Your task to perform on an android device: View the shopping cart on amazon. Add "logitech g pro" to the cart on amazon Image 0: 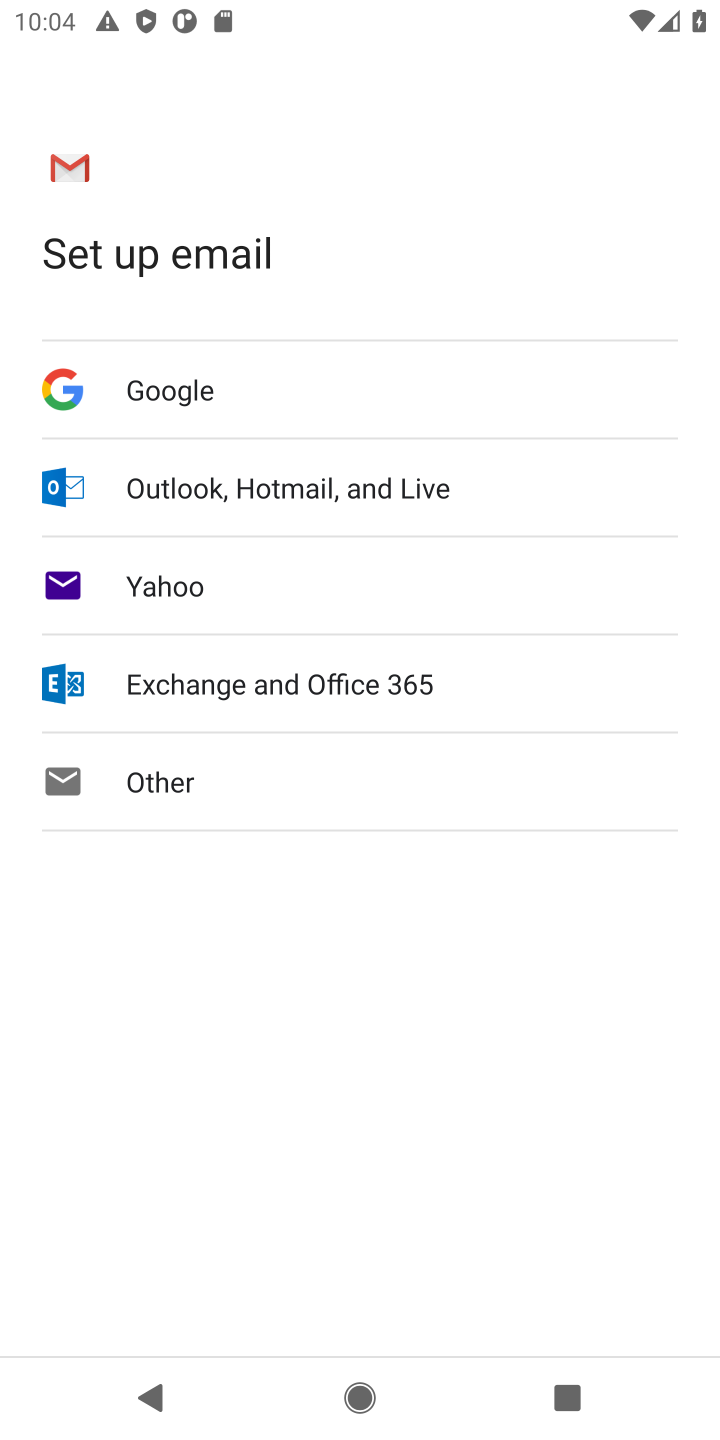
Step 0: press home button
Your task to perform on an android device: View the shopping cart on amazon. Add "logitech g pro" to the cart on amazon Image 1: 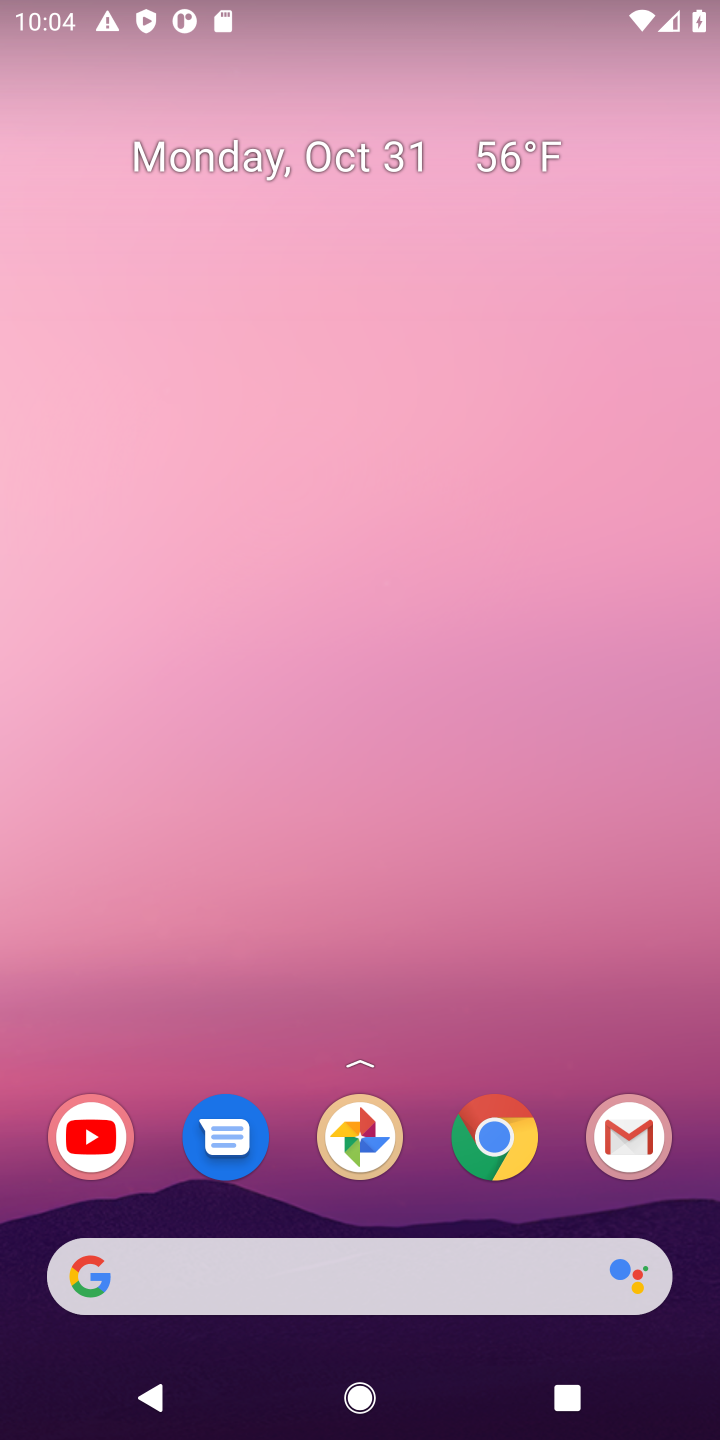
Step 1: click (496, 1135)
Your task to perform on an android device: View the shopping cart on amazon. Add "logitech g pro" to the cart on amazon Image 2: 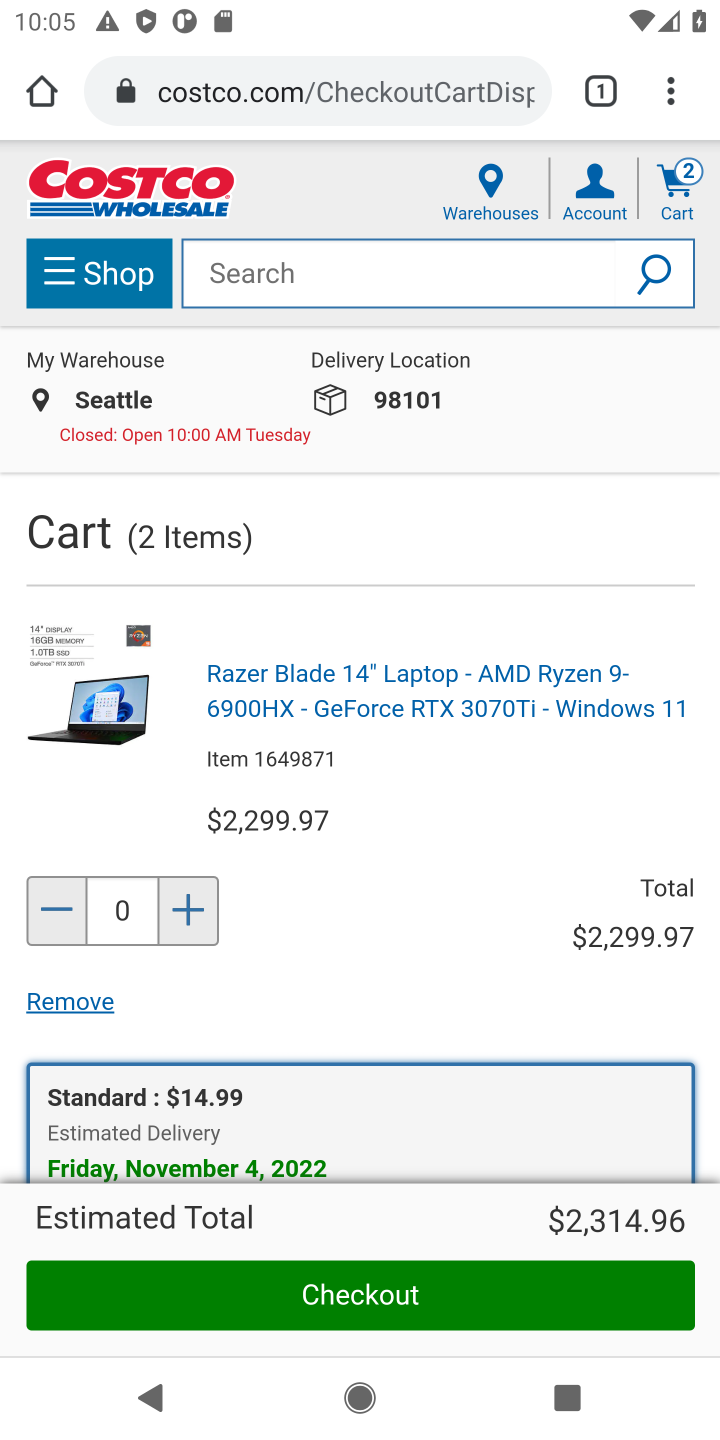
Step 2: click (388, 97)
Your task to perform on an android device: View the shopping cart on amazon. Add "logitech g pro" to the cart on amazon Image 3: 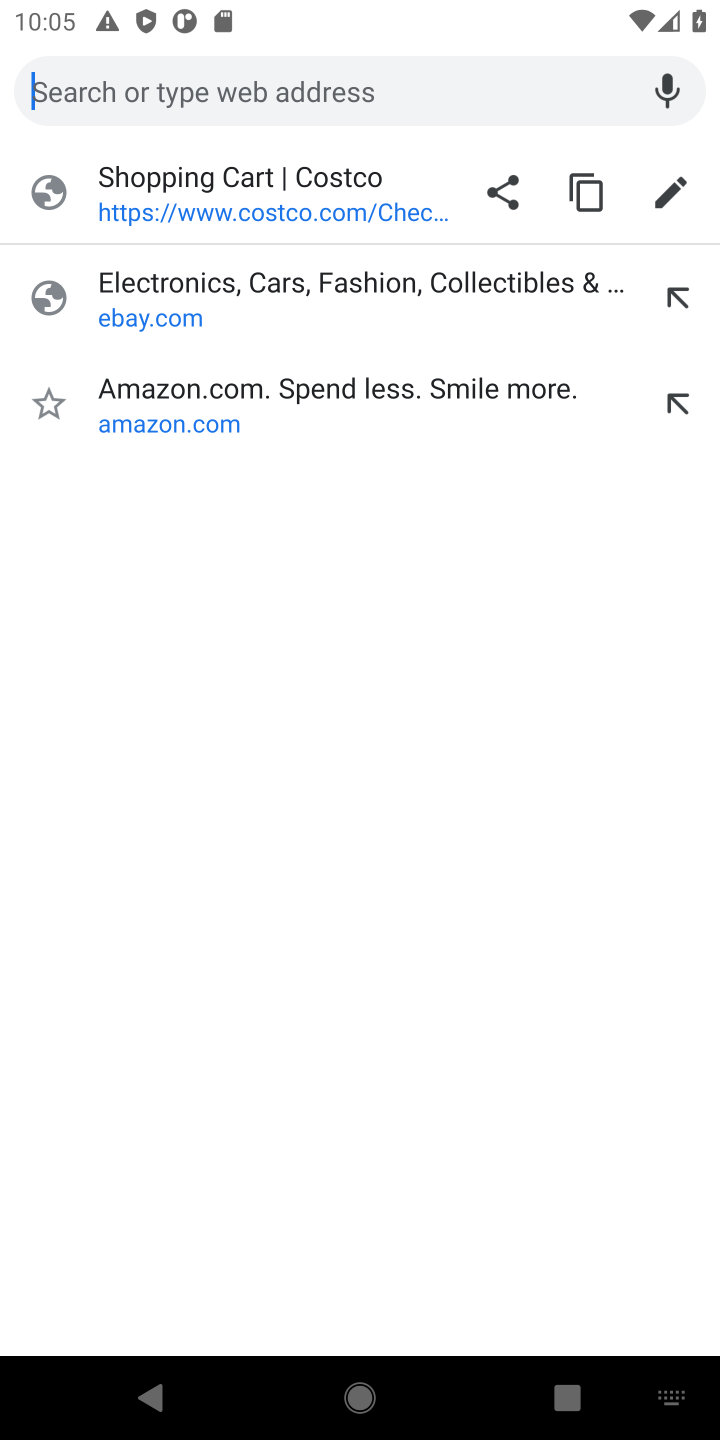
Step 3: type "amazon"
Your task to perform on an android device: View the shopping cart on amazon. Add "logitech g pro" to the cart on amazon Image 4: 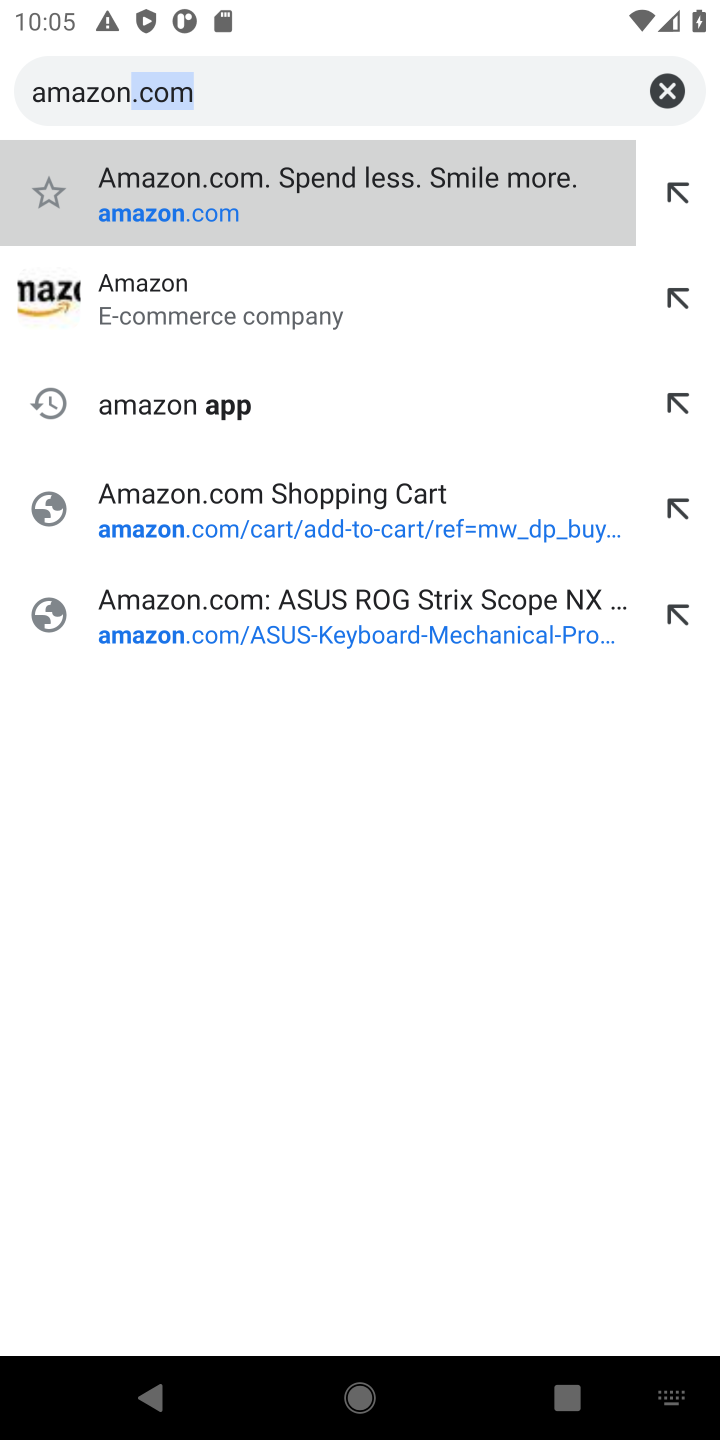
Step 4: click (135, 281)
Your task to perform on an android device: View the shopping cart on amazon. Add "logitech g pro" to the cart on amazon Image 5: 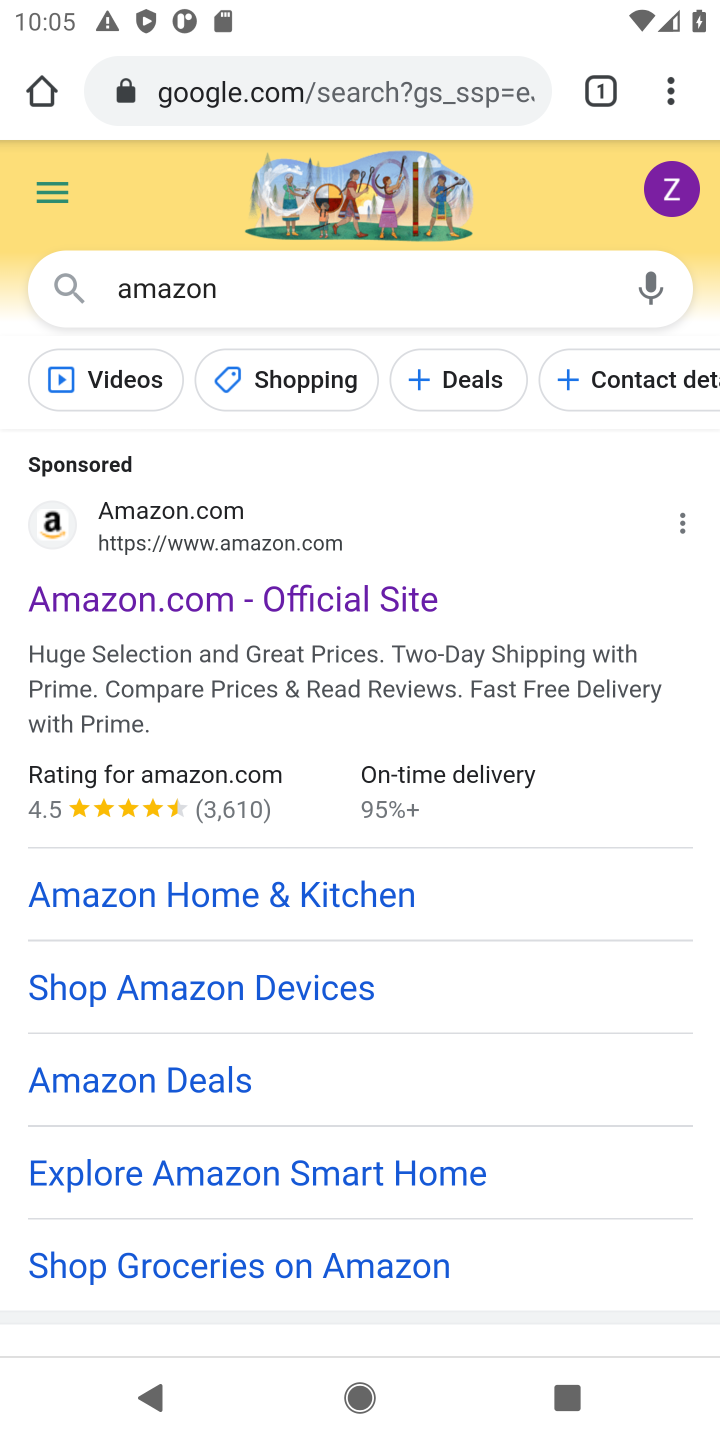
Step 5: drag from (381, 1057) to (410, 517)
Your task to perform on an android device: View the shopping cart on amazon. Add "logitech g pro" to the cart on amazon Image 6: 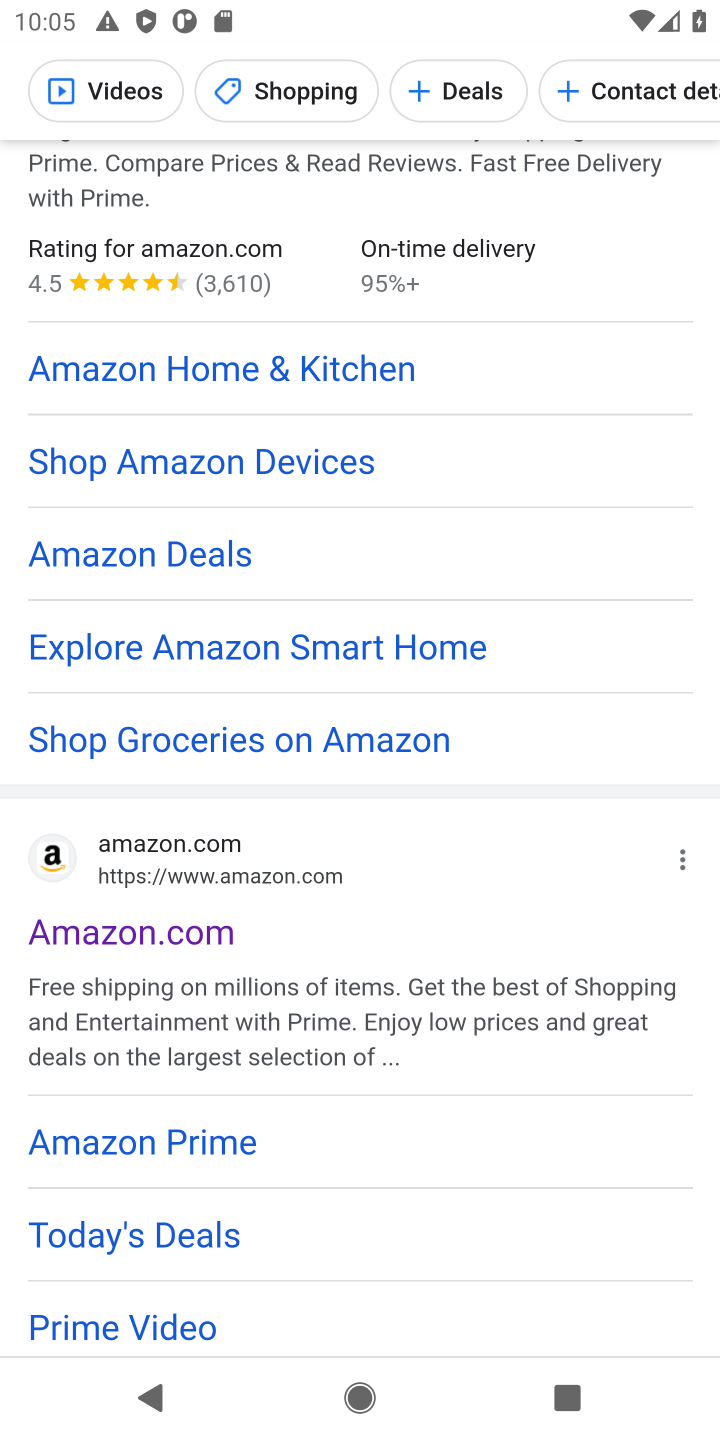
Step 6: click (180, 940)
Your task to perform on an android device: View the shopping cart on amazon. Add "logitech g pro" to the cart on amazon Image 7: 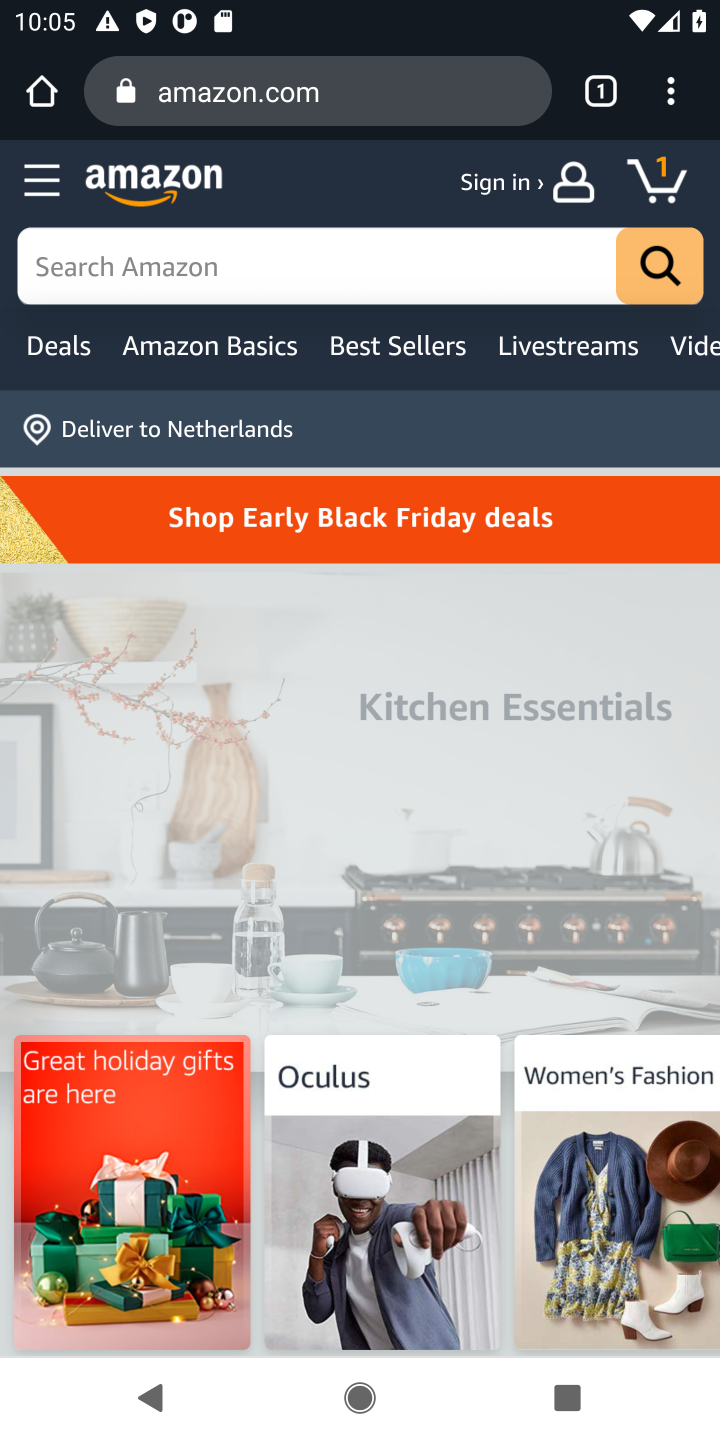
Step 7: click (655, 190)
Your task to perform on an android device: View the shopping cart on amazon. Add "logitech g pro" to the cart on amazon Image 8: 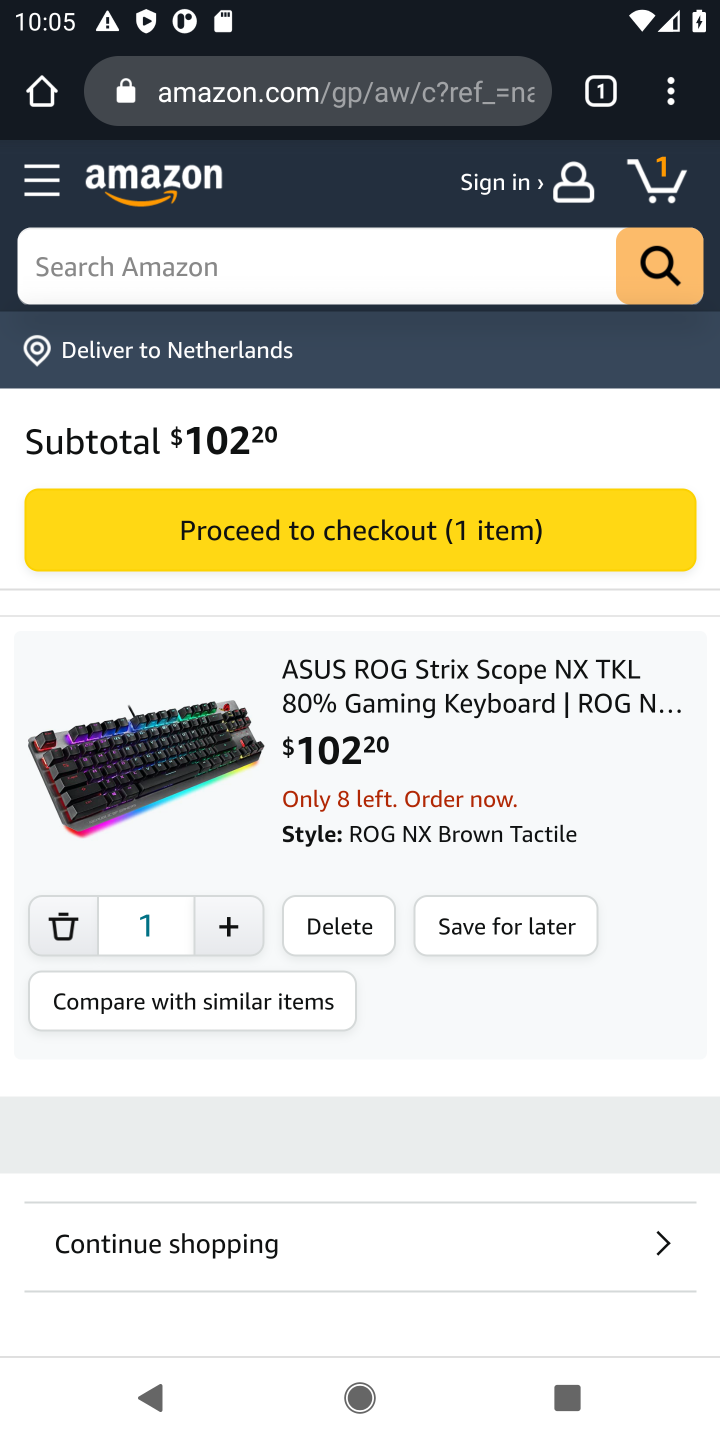
Step 8: click (311, 276)
Your task to perform on an android device: View the shopping cart on amazon. Add "logitech g pro" to the cart on amazon Image 9: 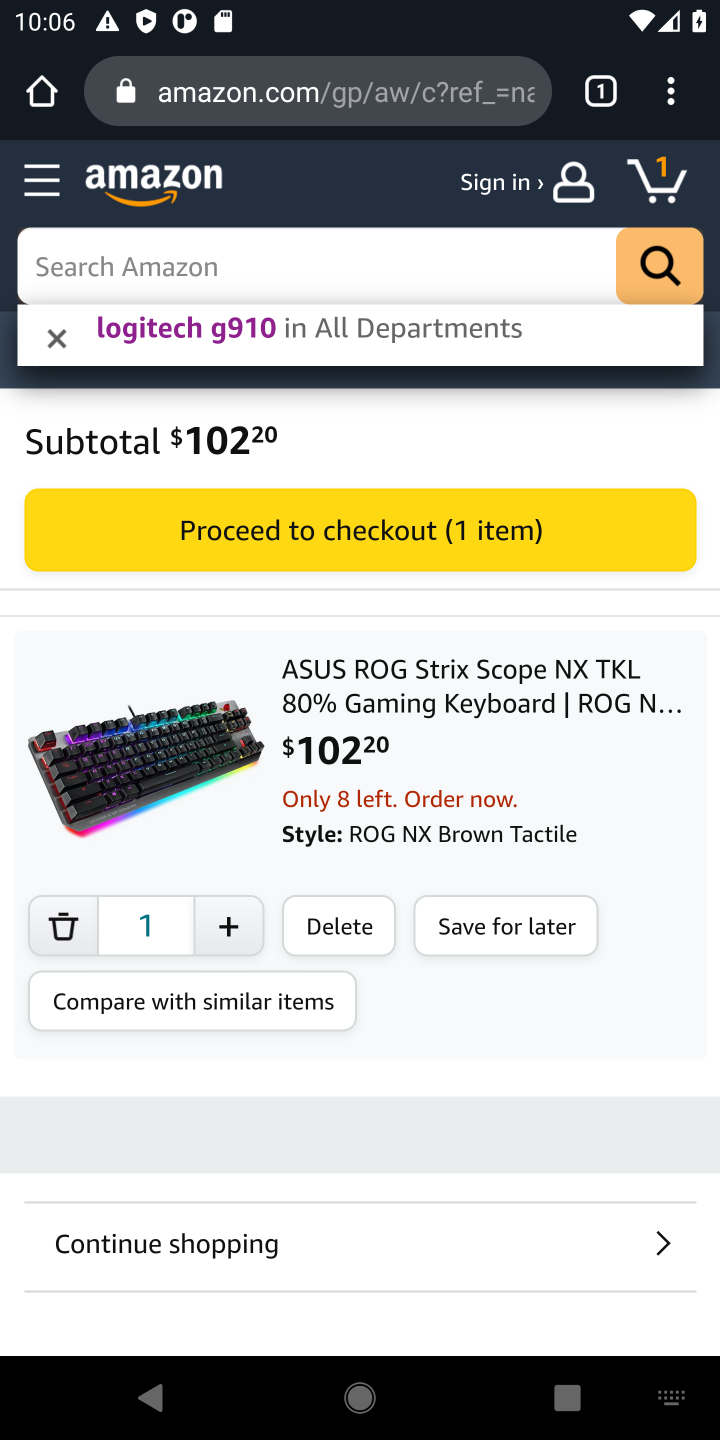
Step 9: type "logitech g pro"
Your task to perform on an android device: View the shopping cart on amazon. Add "logitech g pro" to the cart on amazon Image 10: 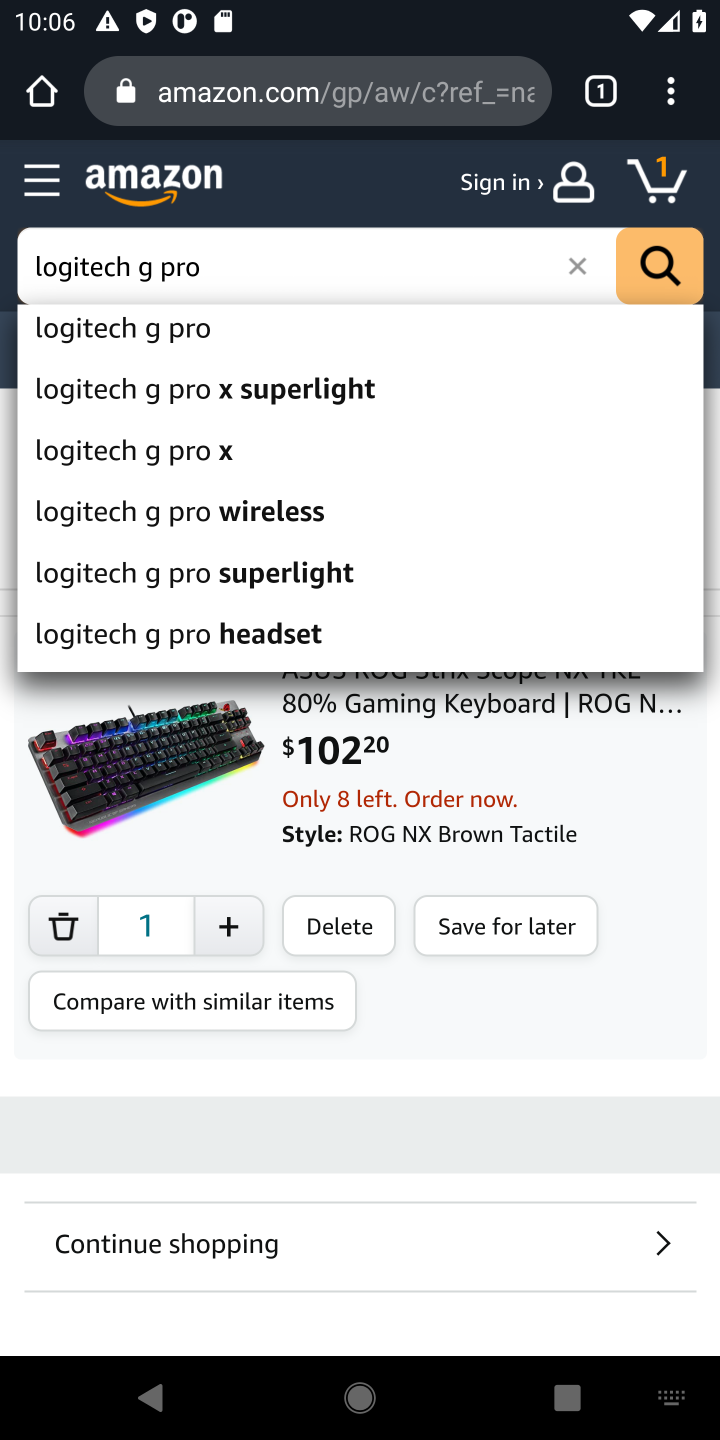
Step 10: click (165, 336)
Your task to perform on an android device: View the shopping cart on amazon. Add "logitech g pro" to the cart on amazon Image 11: 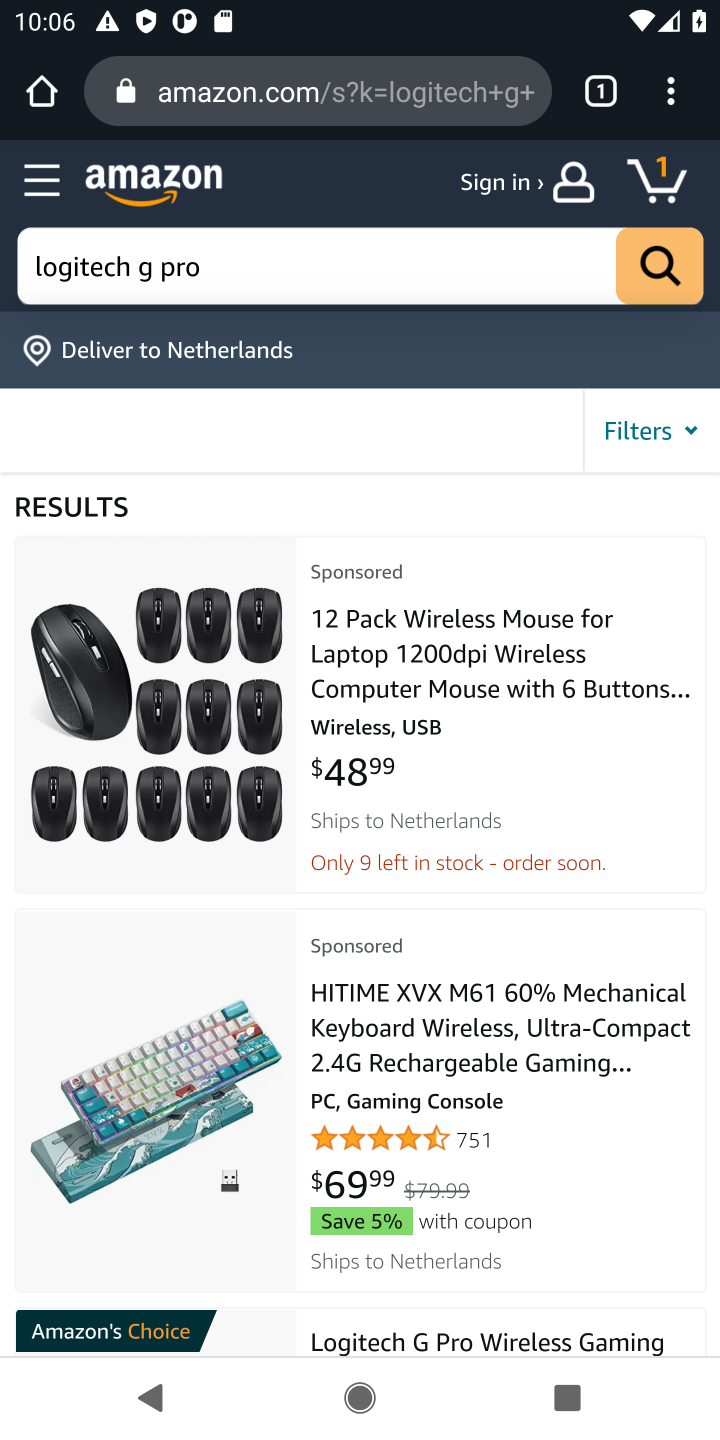
Step 11: click (368, 665)
Your task to perform on an android device: View the shopping cart on amazon. Add "logitech g pro" to the cart on amazon Image 12: 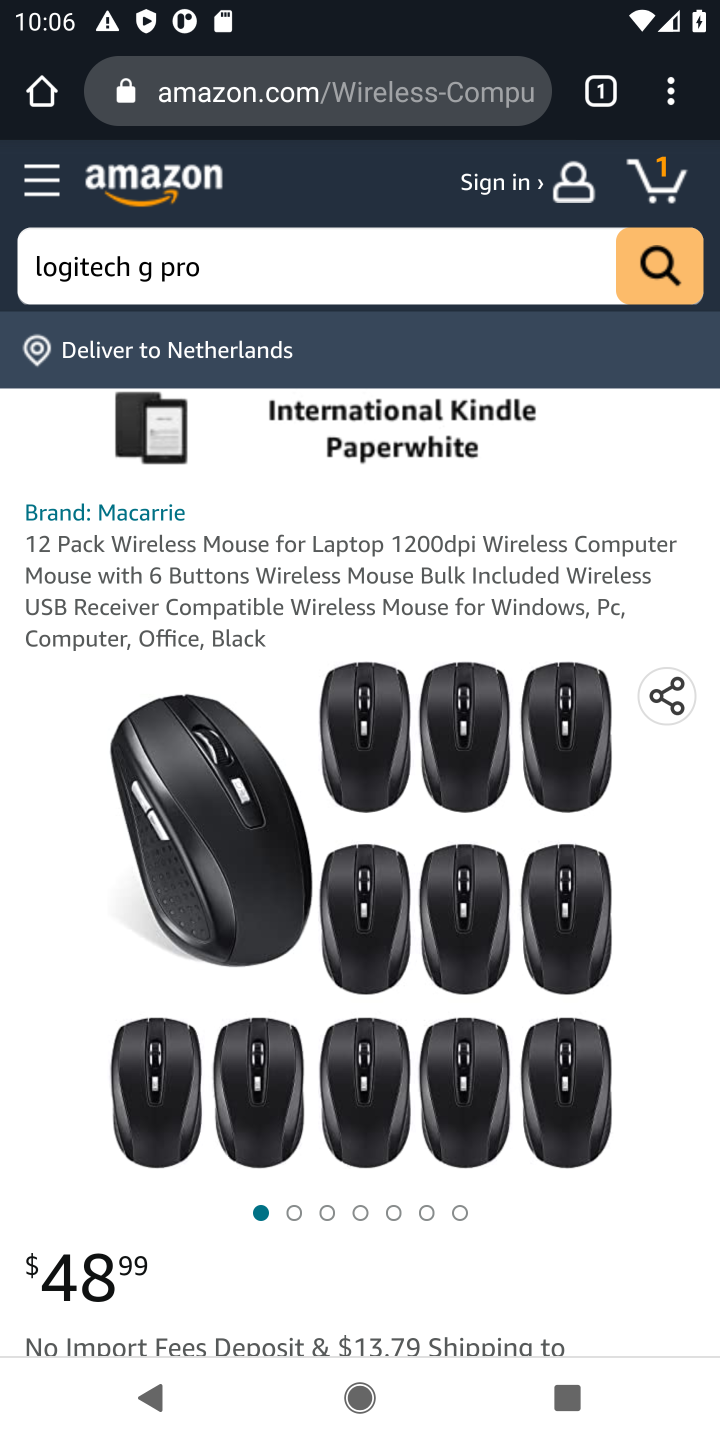
Step 12: drag from (501, 1160) to (517, 614)
Your task to perform on an android device: View the shopping cart on amazon. Add "logitech g pro" to the cart on amazon Image 13: 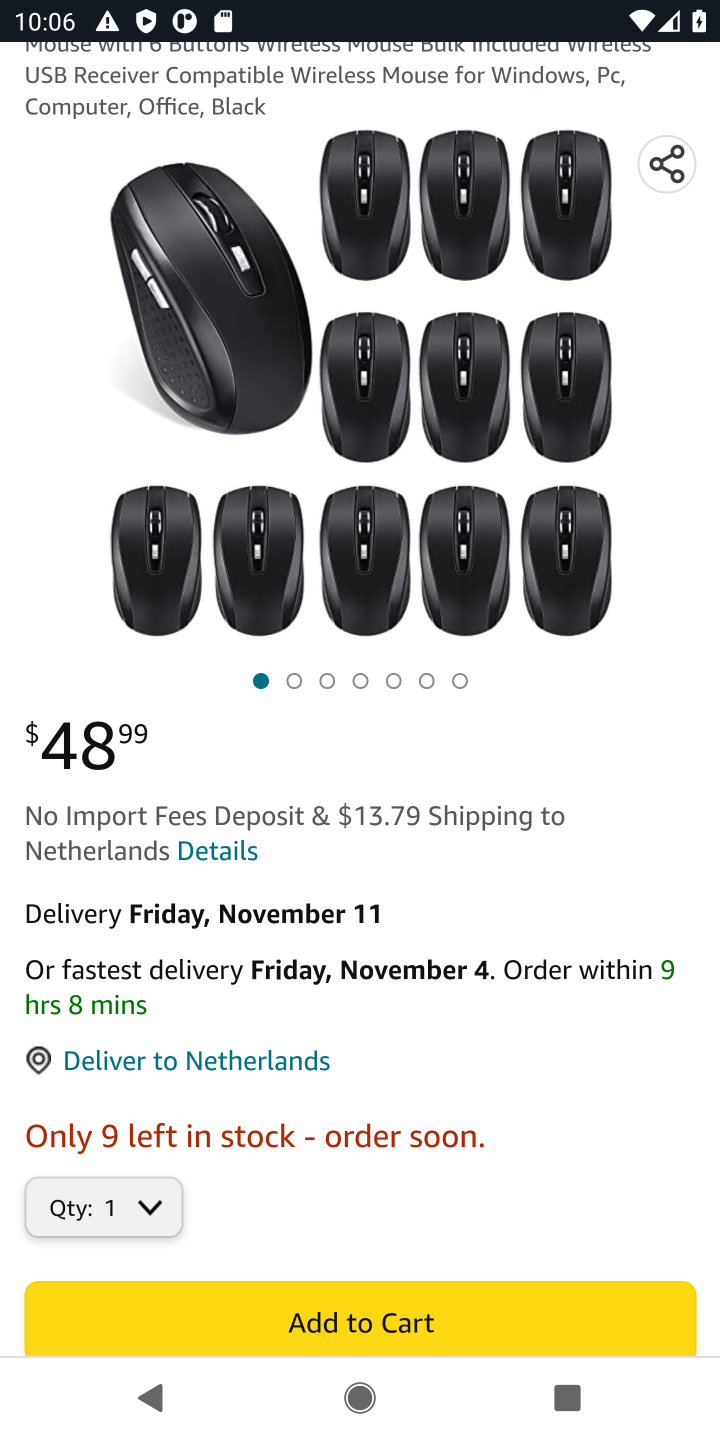
Step 13: click (355, 1328)
Your task to perform on an android device: View the shopping cart on amazon. Add "logitech g pro" to the cart on amazon Image 14: 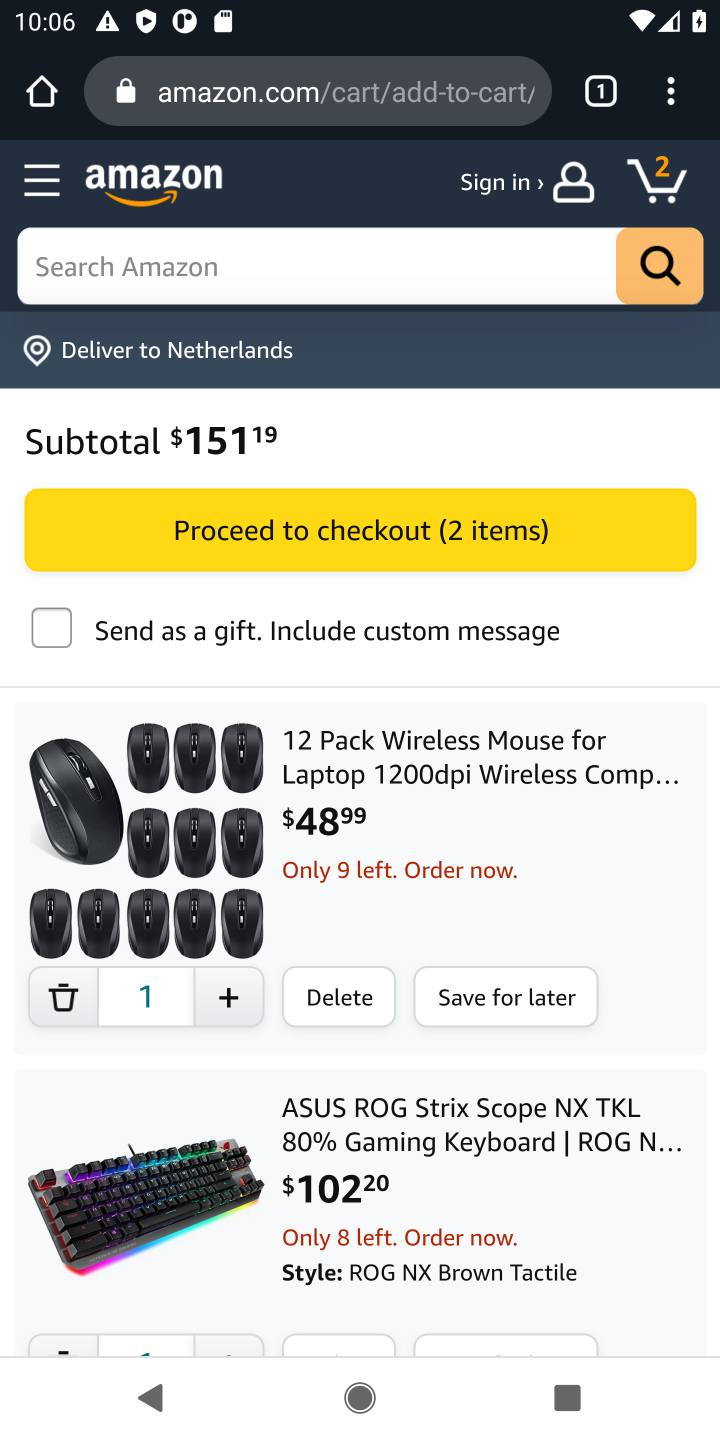
Step 14: task complete